Your task to perform on an android device: turn notification dots off Image 0: 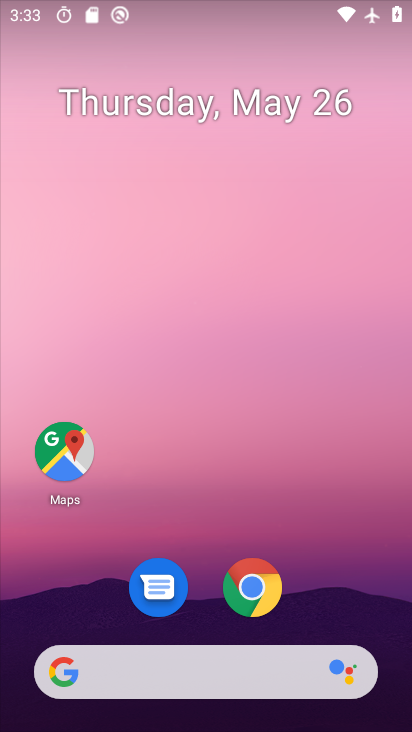
Step 0: drag from (318, 616) to (251, 146)
Your task to perform on an android device: turn notification dots off Image 1: 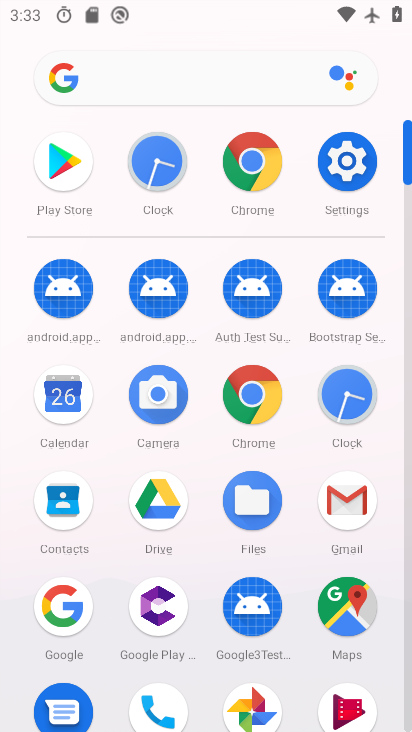
Step 1: click (341, 158)
Your task to perform on an android device: turn notification dots off Image 2: 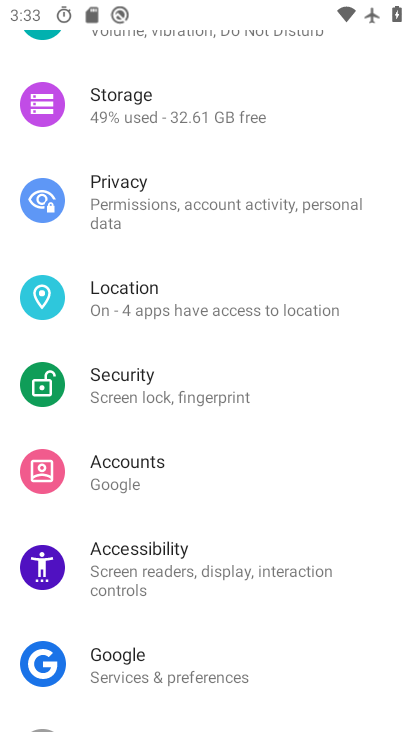
Step 2: drag from (163, 560) to (163, 142)
Your task to perform on an android device: turn notification dots off Image 3: 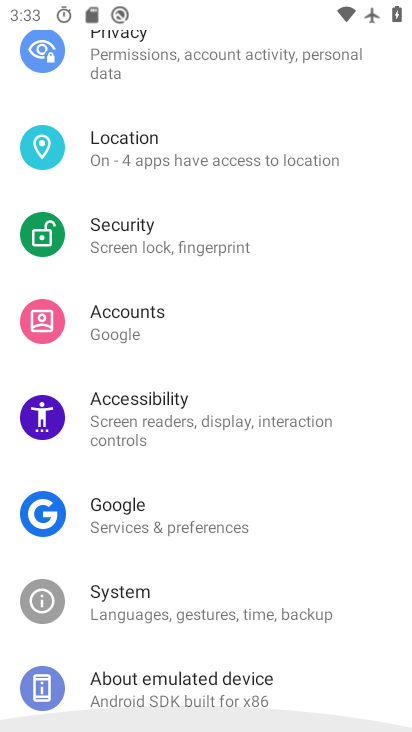
Step 3: drag from (213, 408) to (192, 227)
Your task to perform on an android device: turn notification dots off Image 4: 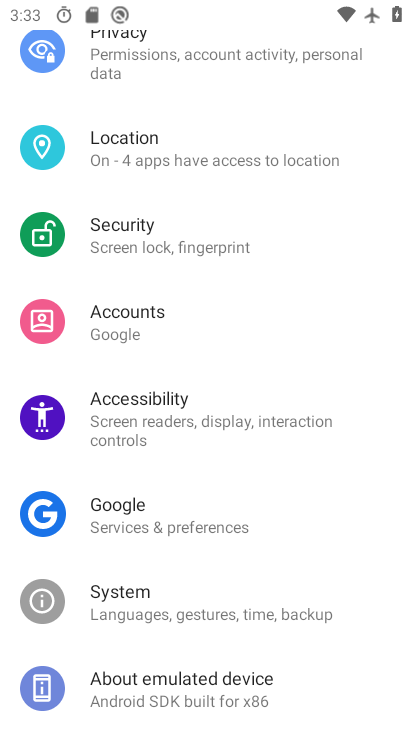
Step 4: drag from (158, 501) to (159, 166)
Your task to perform on an android device: turn notification dots off Image 5: 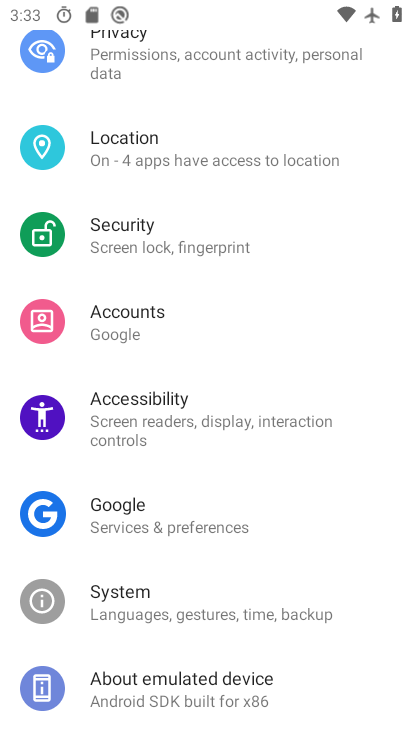
Step 5: drag from (160, 530) to (136, 153)
Your task to perform on an android device: turn notification dots off Image 6: 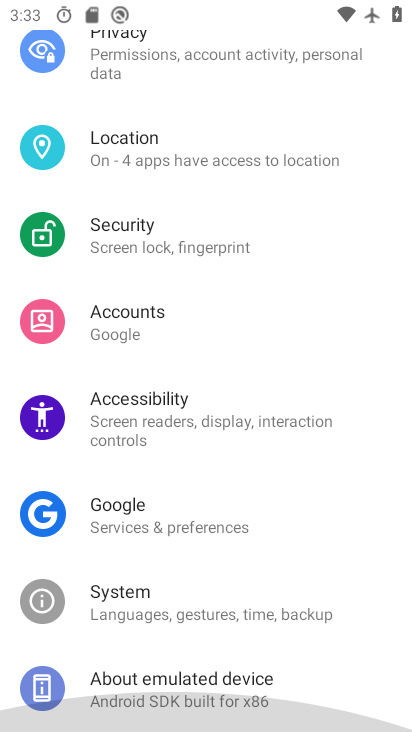
Step 6: drag from (206, 393) to (210, 163)
Your task to perform on an android device: turn notification dots off Image 7: 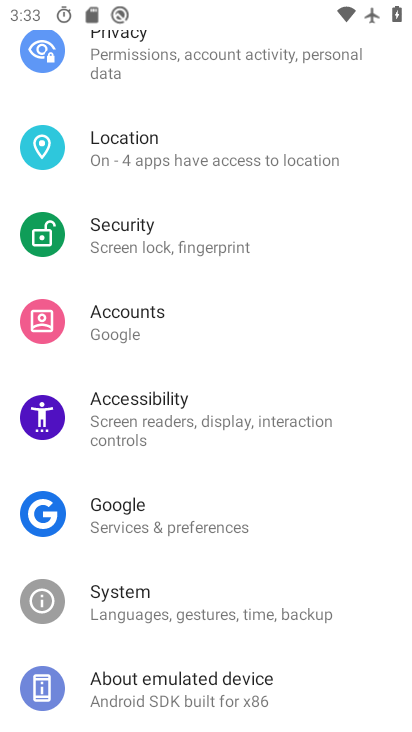
Step 7: drag from (155, 164) to (219, 490)
Your task to perform on an android device: turn notification dots off Image 8: 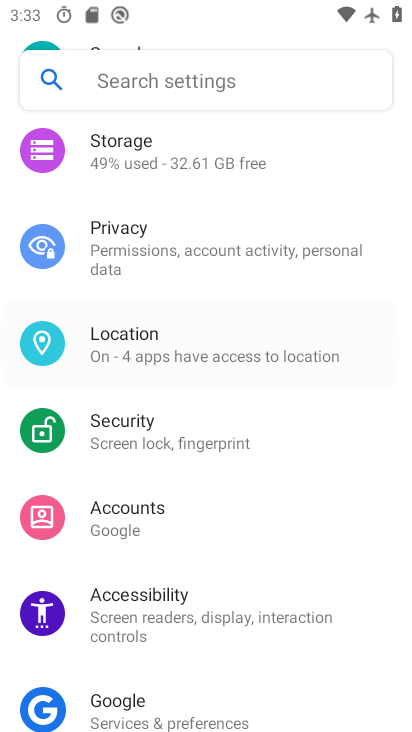
Step 8: drag from (163, 205) to (233, 522)
Your task to perform on an android device: turn notification dots off Image 9: 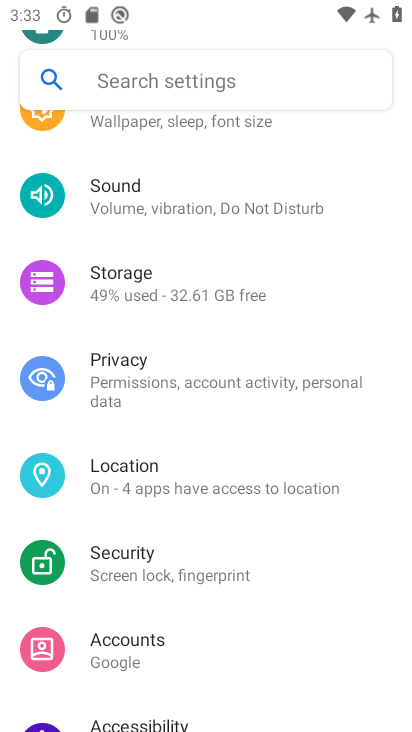
Step 9: drag from (176, 221) to (228, 549)
Your task to perform on an android device: turn notification dots off Image 10: 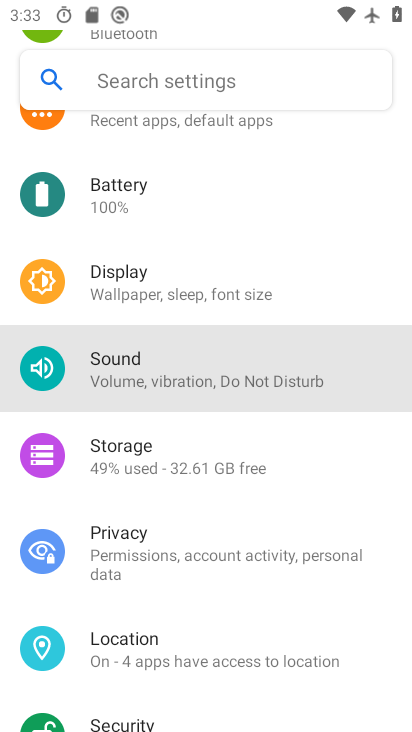
Step 10: drag from (202, 251) to (242, 564)
Your task to perform on an android device: turn notification dots off Image 11: 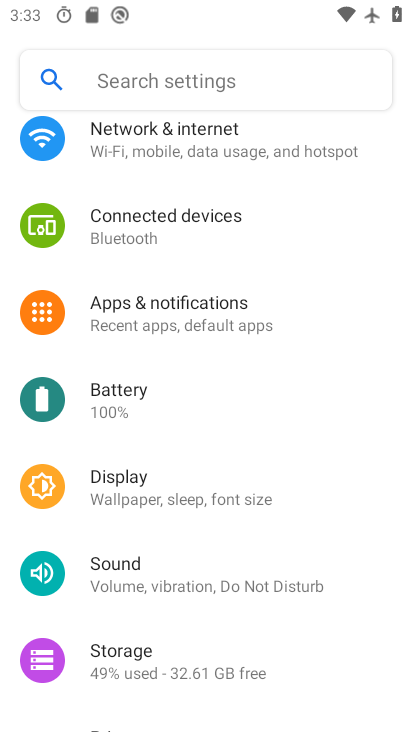
Step 11: drag from (188, 246) to (233, 616)
Your task to perform on an android device: turn notification dots off Image 12: 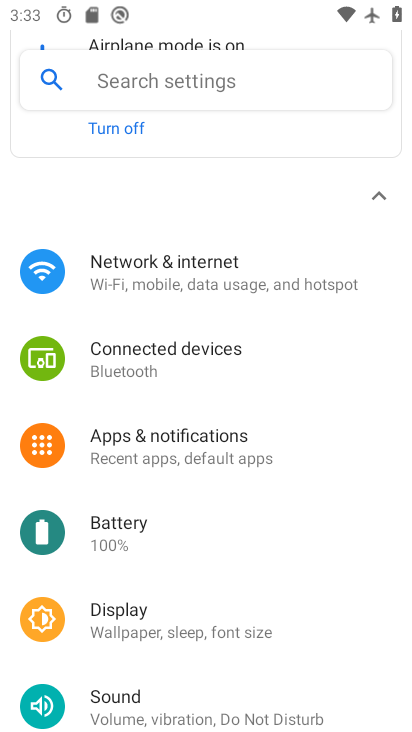
Step 12: drag from (241, 306) to (289, 682)
Your task to perform on an android device: turn notification dots off Image 13: 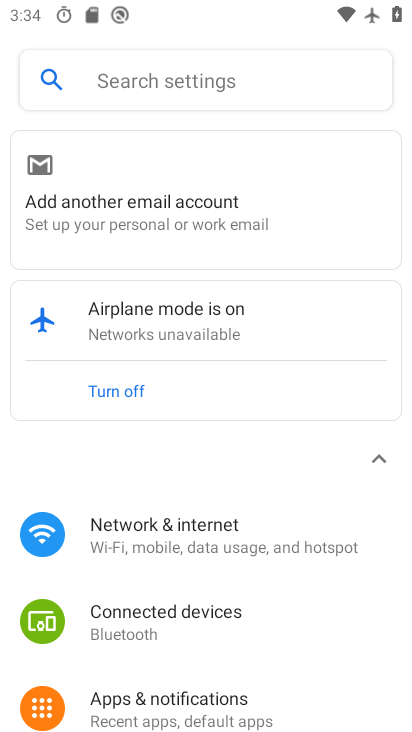
Step 13: click (178, 699)
Your task to perform on an android device: turn notification dots off Image 14: 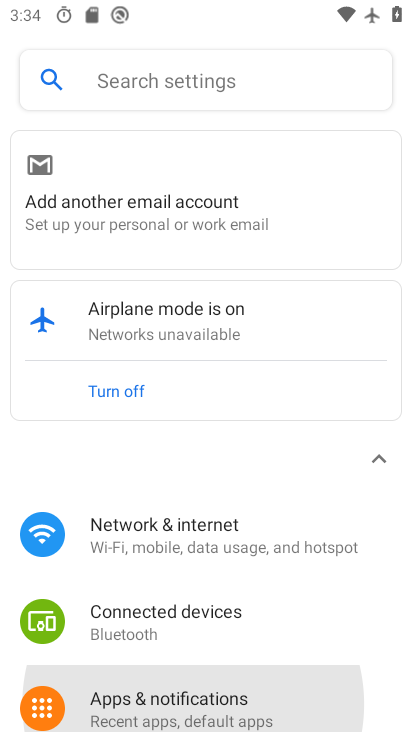
Step 14: click (178, 699)
Your task to perform on an android device: turn notification dots off Image 15: 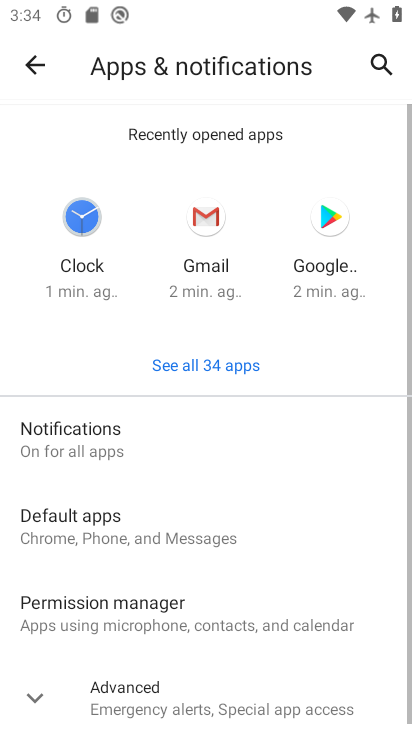
Step 15: click (80, 434)
Your task to perform on an android device: turn notification dots off Image 16: 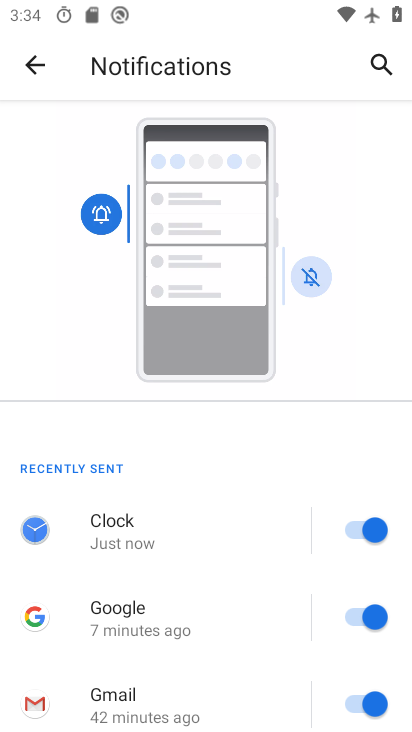
Step 16: drag from (205, 563) to (205, 75)
Your task to perform on an android device: turn notification dots off Image 17: 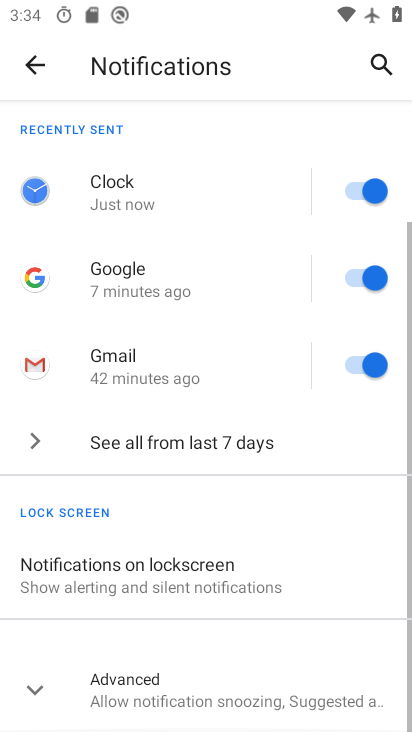
Step 17: drag from (260, 375) to (237, 70)
Your task to perform on an android device: turn notification dots off Image 18: 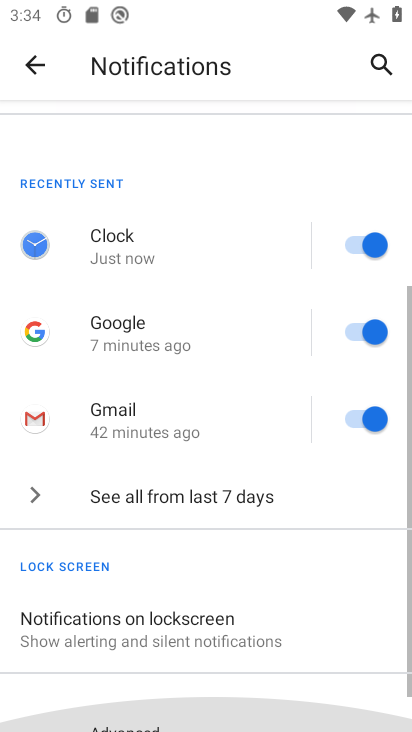
Step 18: drag from (247, 312) to (264, 44)
Your task to perform on an android device: turn notification dots off Image 19: 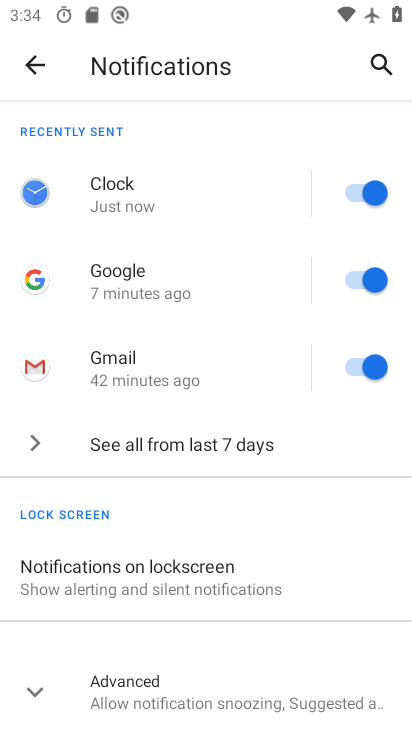
Step 19: click (153, 680)
Your task to perform on an android device: turn notification dots off Image 20: 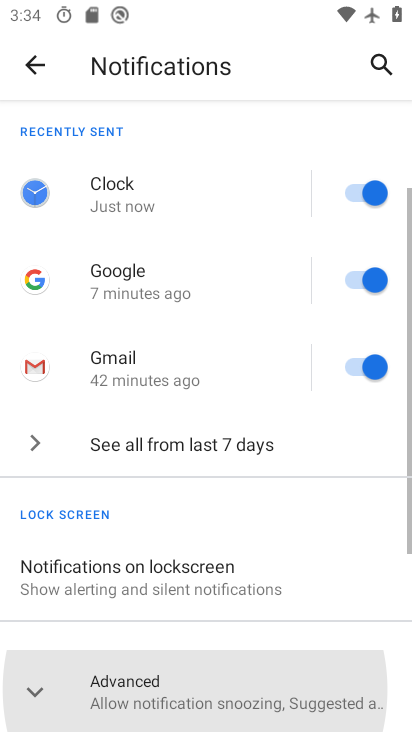
Step 20: click (153, 680)
Your task to perform on an android device: turn notification dots off Image 21: 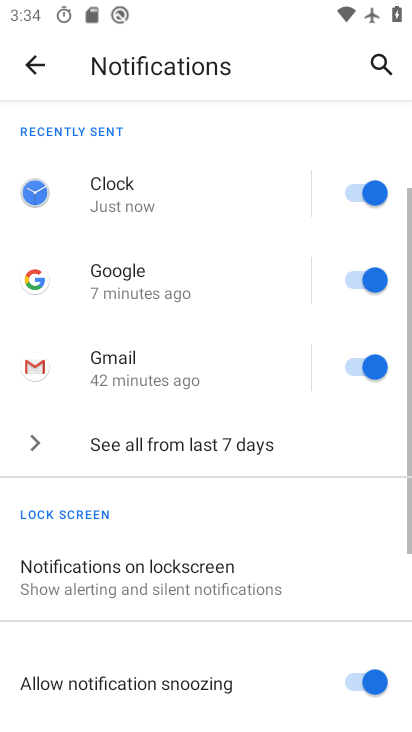
Step 21: task complete